Your task to perform on an android device: Open Google Image 0: 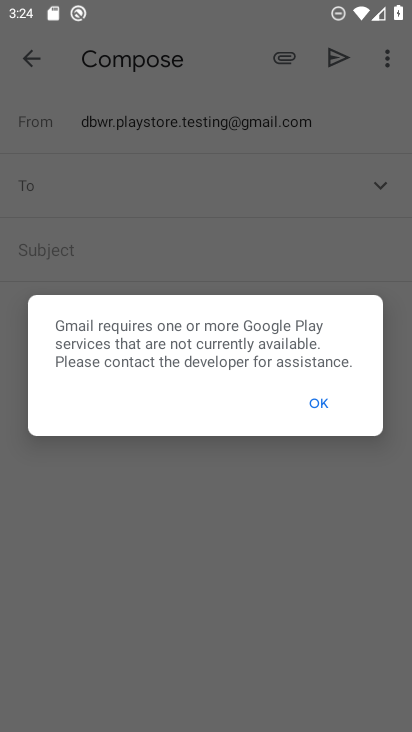
Step 0: drag from (228, 619) to (333, 231)
Your task to perform on an android device: Open Google Image 1: 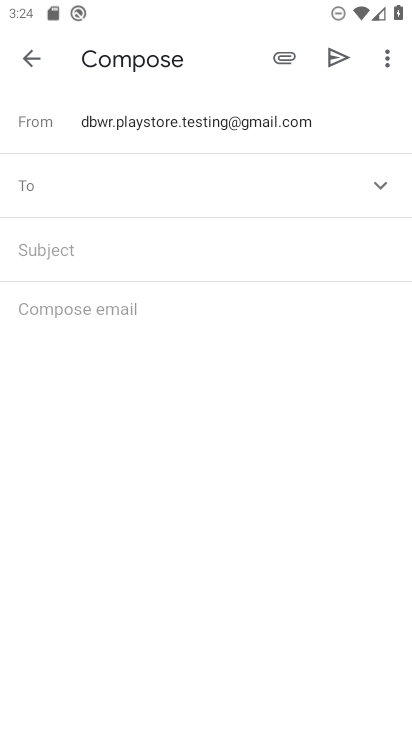
Step 1: press home button
Your task to perform on an android device: Open Google Image 2: 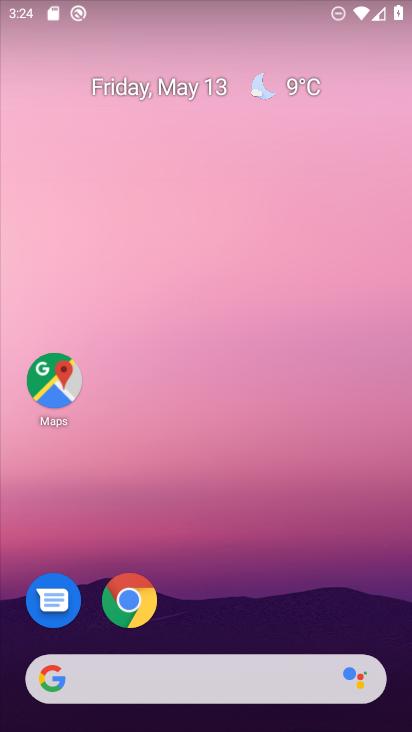
Step 2: drag from (172, 609) to (258, 128)
Your task to perform on an android device: Open Google Image 3: 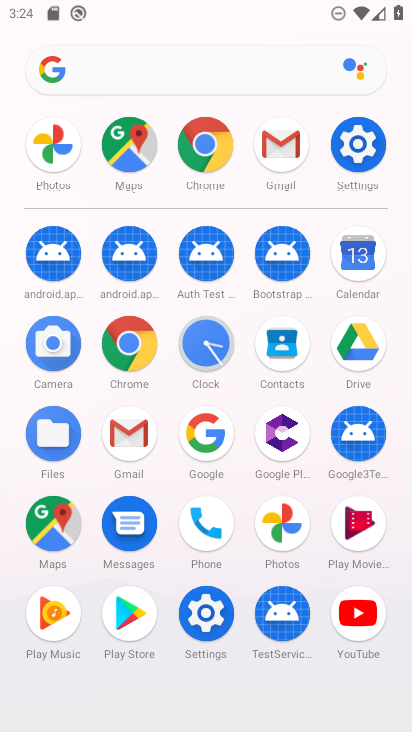
Step 3: click (227, 428)
Your task to perform on an android device: Open Google Image 4: 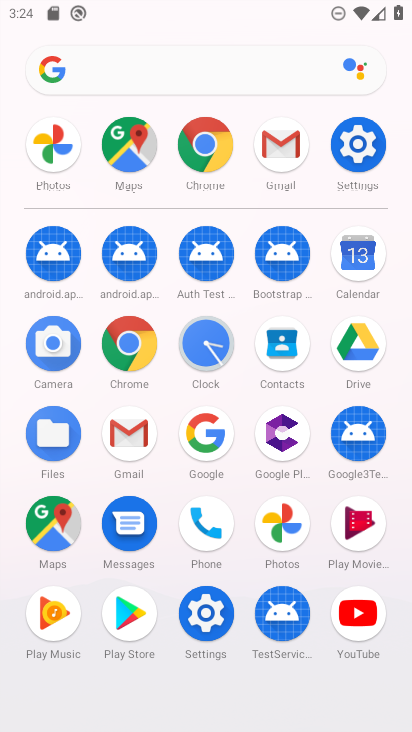
Step 4: click (227, 428)
Your task to perform on an android device: Open Google Image 5: 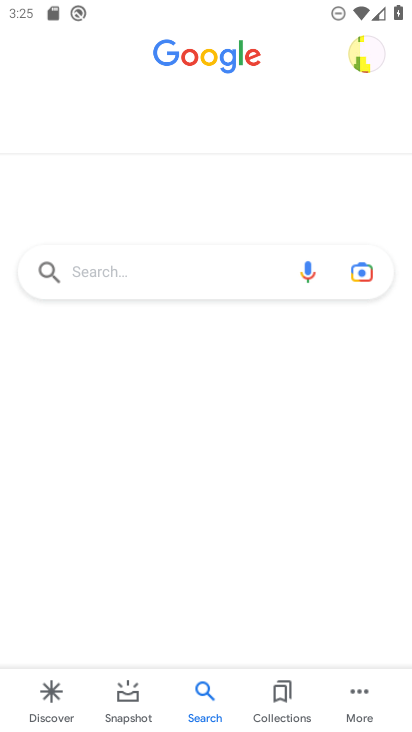
Step 5: task complete